Your task to perform on an android device: choose inbox layout in the gmail app Image 0: 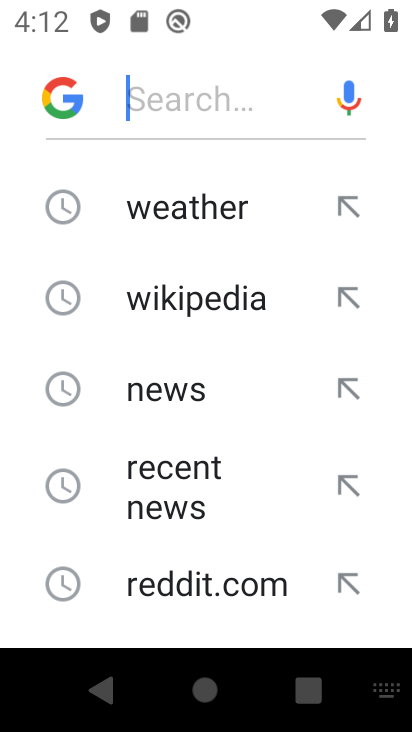
Step 0: press home button
Your task to perform on an android device: choose inbox layout in the gmail app Image 1: 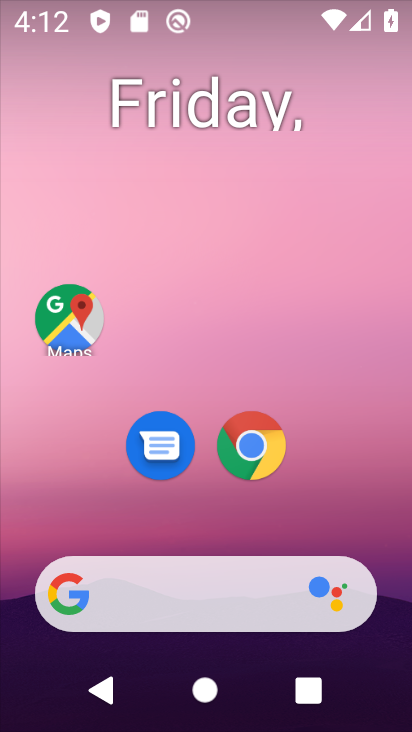
Step 1: drag from (344, 524) to (292, 51)
Your task to perform on an android device: choose inbox layout in the gmail app Image 2: 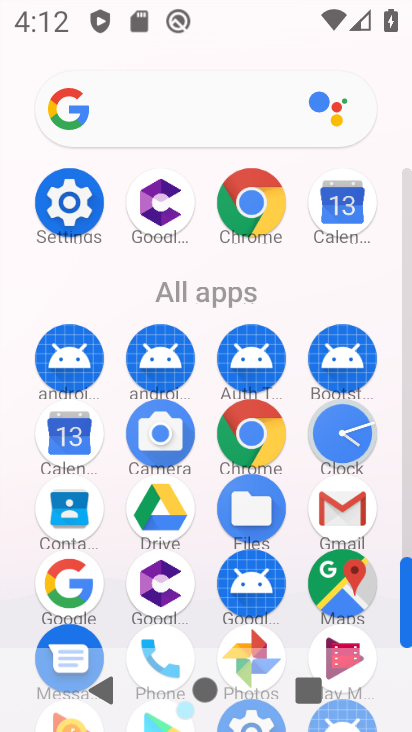
Step 2: click (338, 493)
Your task to perform on an android device: choose inbox layout in the gmail app Image 3: 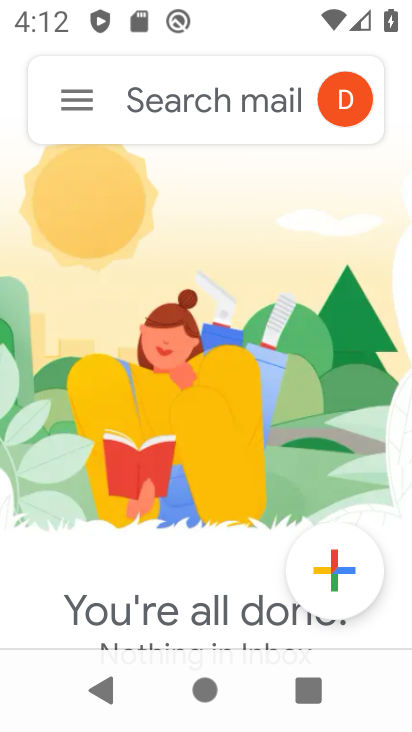
Step 3: click (81, 102)
Your task to perform on an android device: choose inbox layout in the gmail app Image 4: 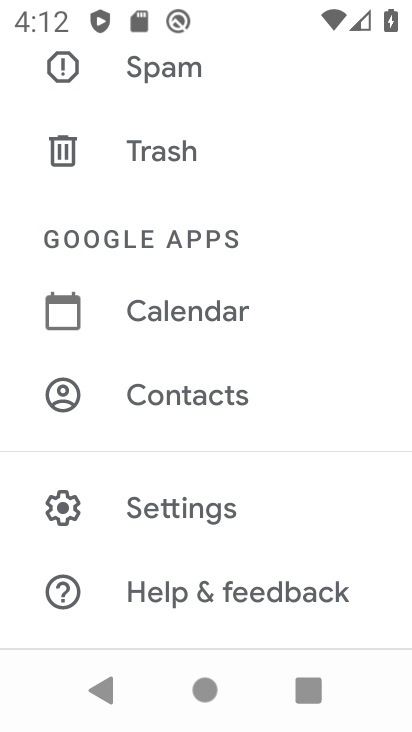
Step 4: drag from (176, 540) to (268, 201)
Your task to perform on an android device: choose inbox layout in the gmail app Image 5: 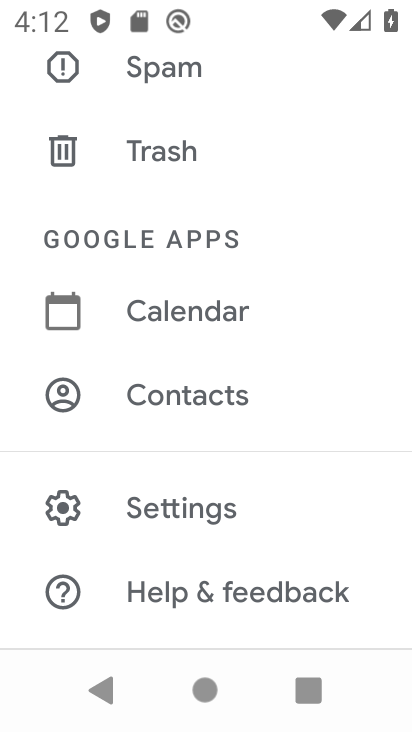
Step 5: click (221, 511)
Your task to perform on an android device: choose inbox layout in the gmail app Image 6: 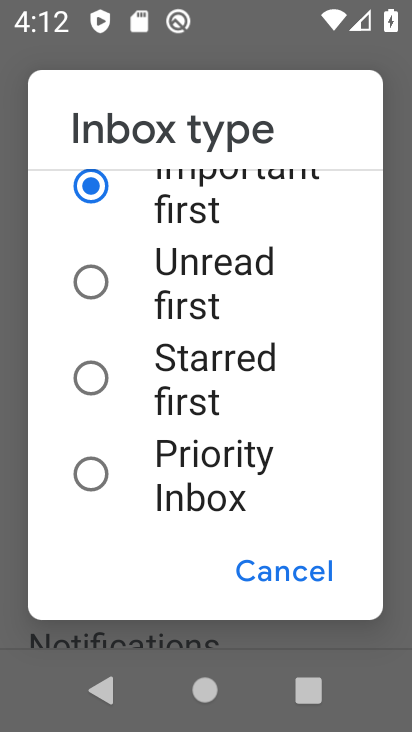
Step 6: task complete